Your task to perform on an android device: What is the recent news? Image 0: 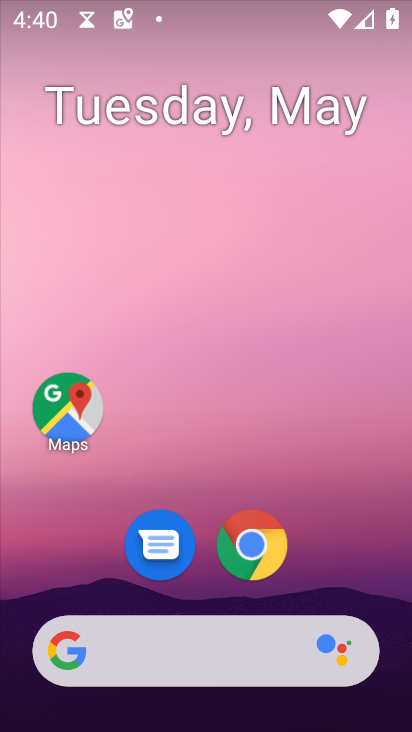
Step 0: drag from (340, 592) to (268, 197)
Your task to perform on an android device: What is the recent news? Image 1: 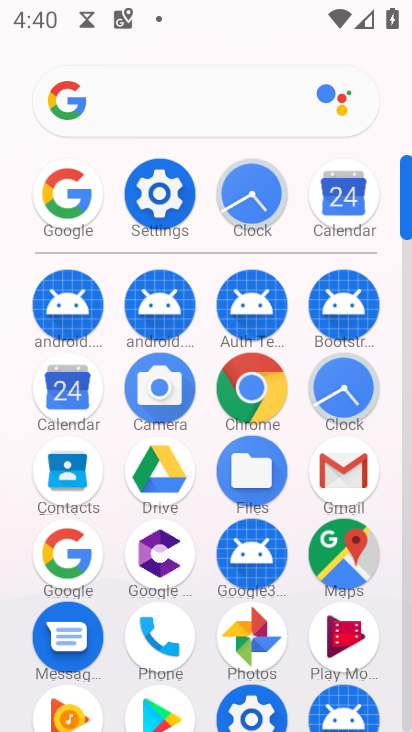
Step 1: click (60, 194)
Your task to perform on an android device: What is the recent news? Image 2: 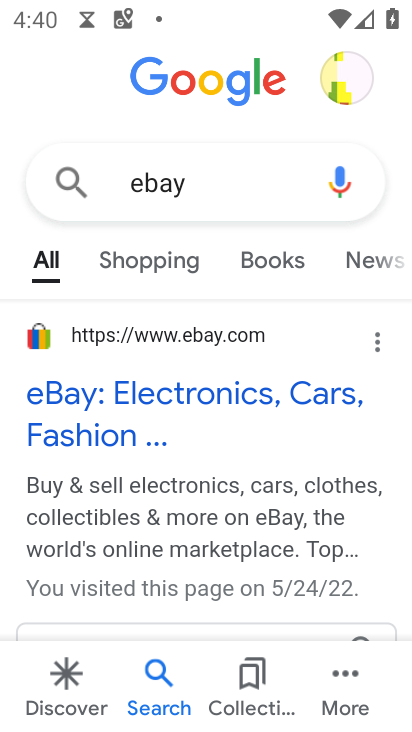
Step 2: click (276, 184)
Your task to perform on an android device: What is the recent news? Image 3: 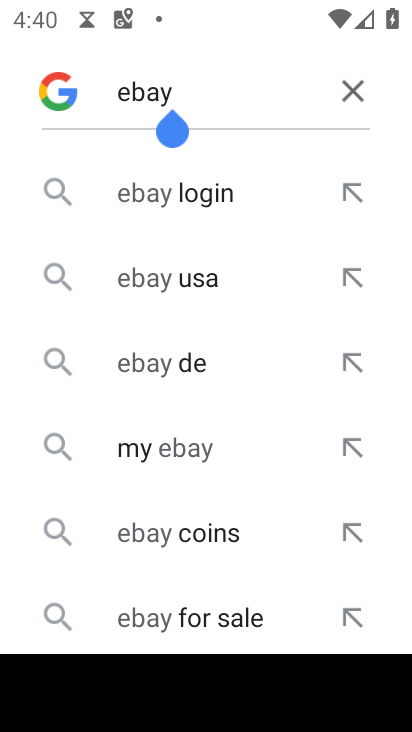
Step 3: click (351, 89)
Your task to perform on an android device: What is the recent news? Image 4: 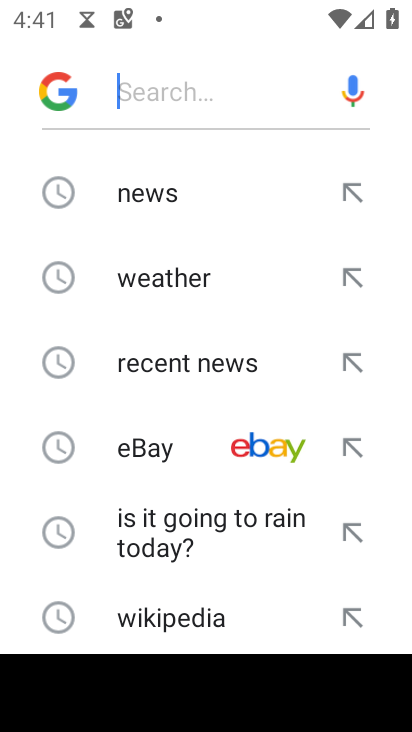
Step 4: type "recent news"
Your task to perform on an android device: What is the recent news? Image 5: 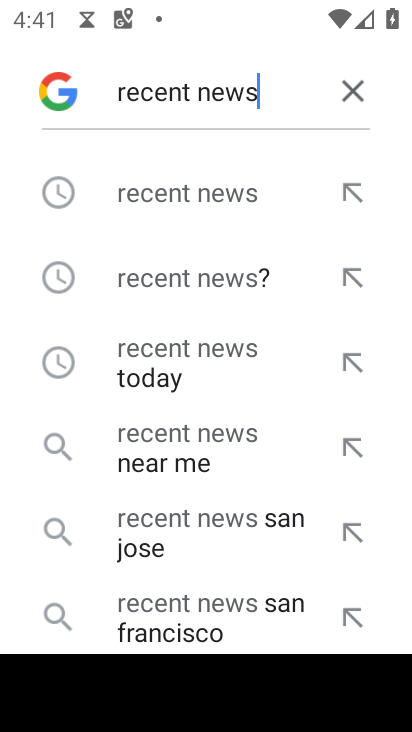
Step 5: click (187, 193)
Your task to perform on an android device: What is the recent news? Image 6: 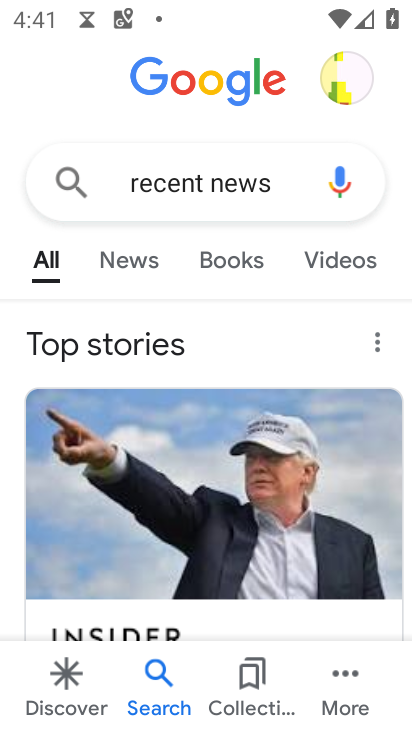
Step 6: drag from (191, 527) to (247, 294)
Your task to perform on an android device: What is the recent news? Image 7: 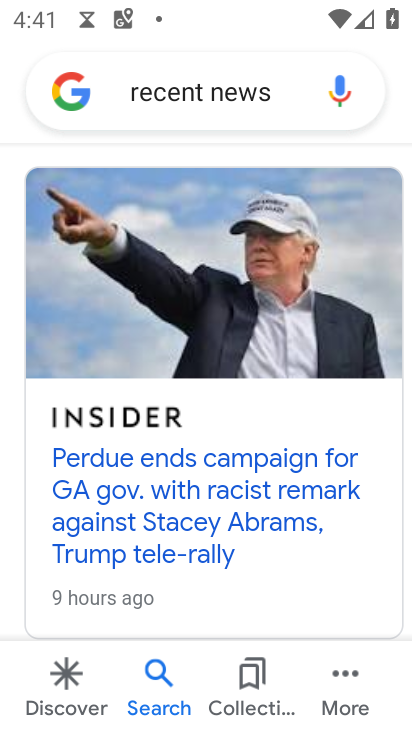
Step 7: click (162, 504)
Your task to perform on an android device: What is the recent news? Image 8: 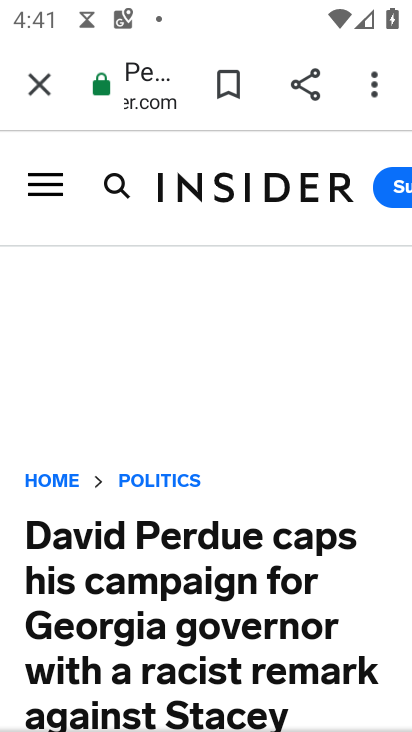
Step 8: task complete